Your task to perform on an android device: turn on priority inbox in the gmail app Image 0: 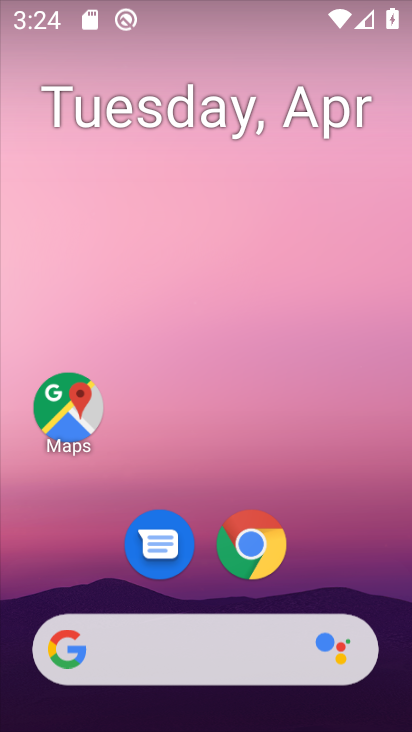
Step 0: drag from (318, 575) to (323, 116)
Your task to perform on an android device: turn on priority inbox in the gmail app Image 1: 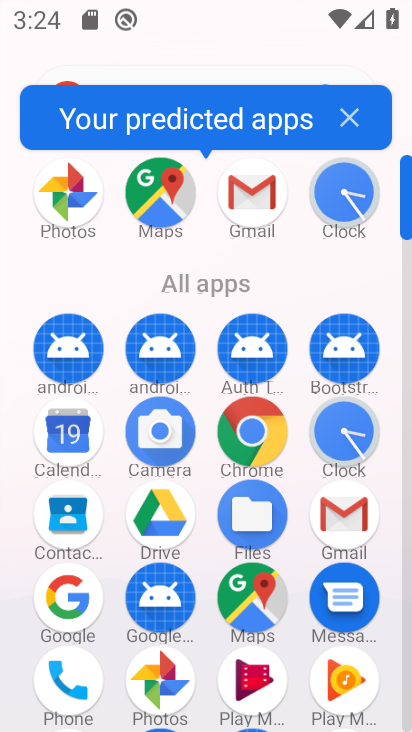
Step 1: click (262, 186)
Your task to perform on an android device: turn on priority inbox in the gmail app Image 2: 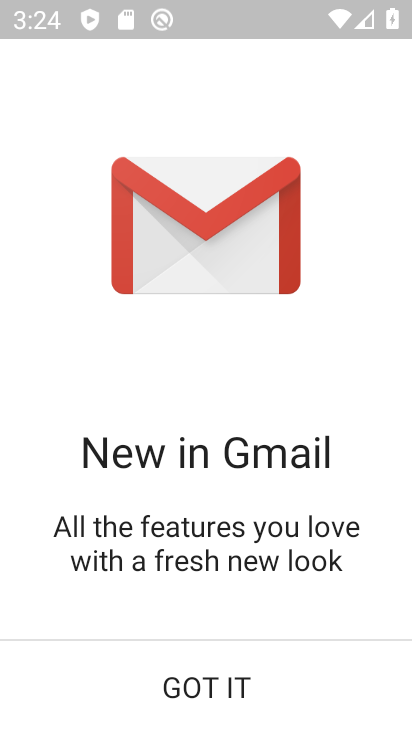
Step 2: click (202, 697)
Your task to perform on an android device: turn on priority inbox in the gmail app Image 3: 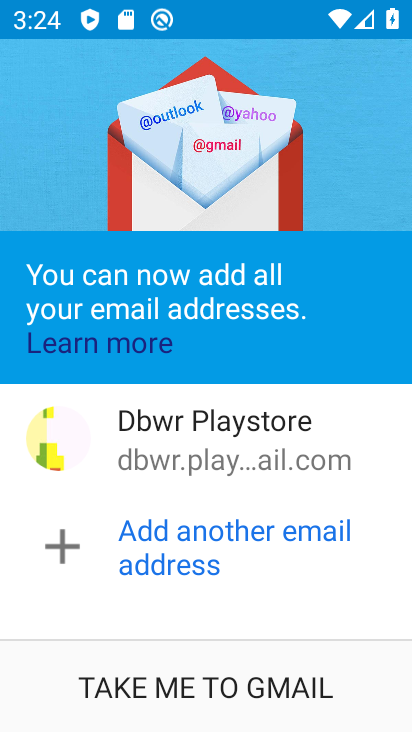
Step 3: click (189, 703)
Your task to perform on an android device: turn on priority inbox in the gmail app Image 4: 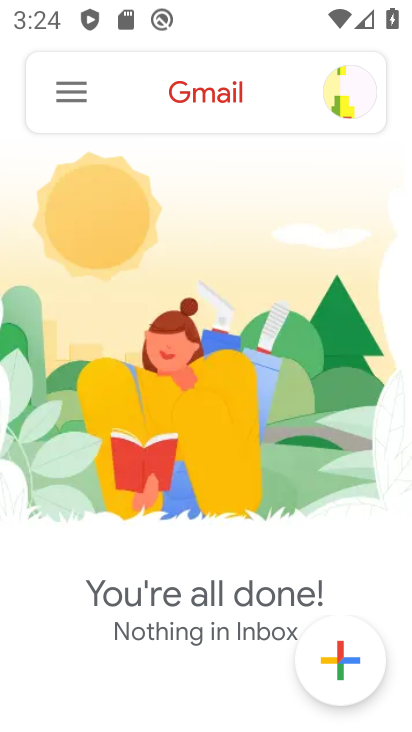
Step 4: click (57, 94)
Your task to perform on an android device: turn on priority inbox in the gmail app Image 5: 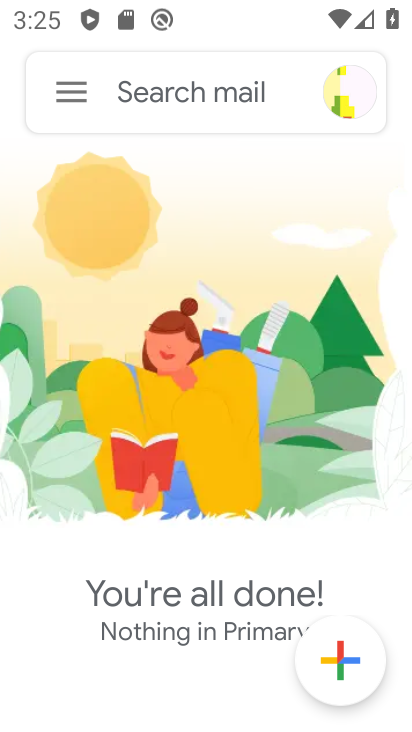
Step 5: click (69, 85)
Your task to perform on an android device: turn on priority inbox in the gmail app Image 6: 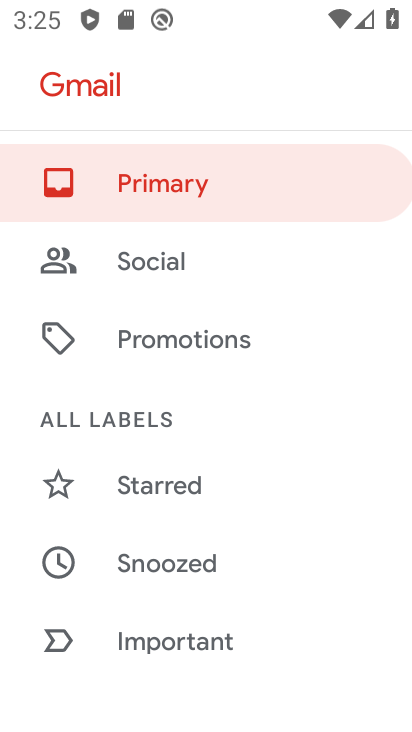
Step 6: drag from (236, 562) to (251, 244)
Your task to perform on an android device: turn on priority inbox in the gmail app Image 7: 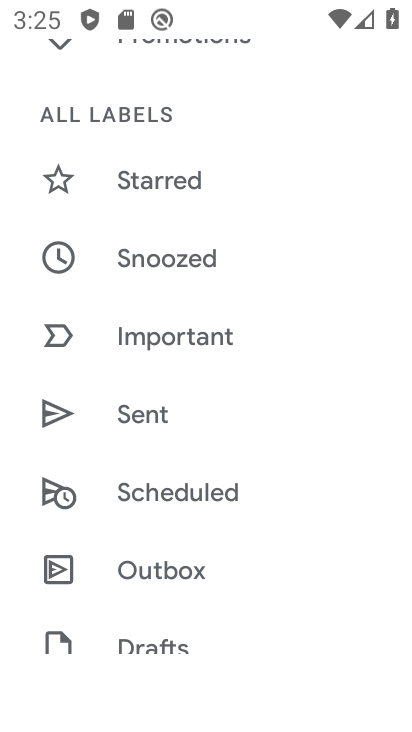
Step 7: drag from (234, 615) to (275, 210)
Your task to perform on an android device: turn on priority inbox in the gmail app Image 8: 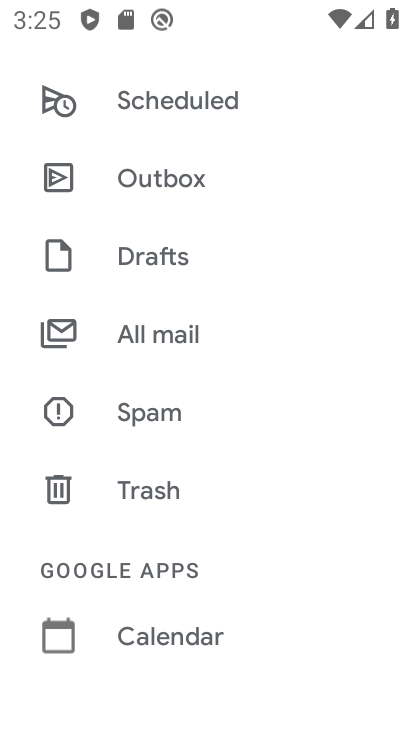
Step 8: drag from (228, 634) to (276, 253)
Your task to perform on an android device: turn on priority inbox in the gmail app Image 9: 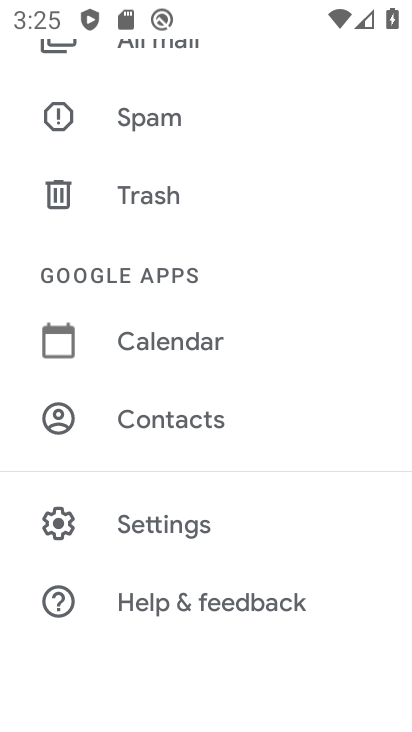
Step 9: click (194, 525)
Your task to perform on an android device: turn on priority inbox in the gmail app Image 10: 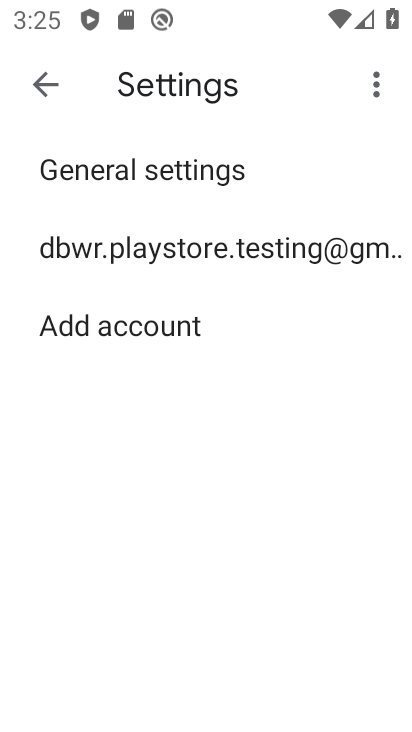
Step 10: click (192, 254)
Your task to perform on an android device: turn on priority inbox in the gmail app Image 11: 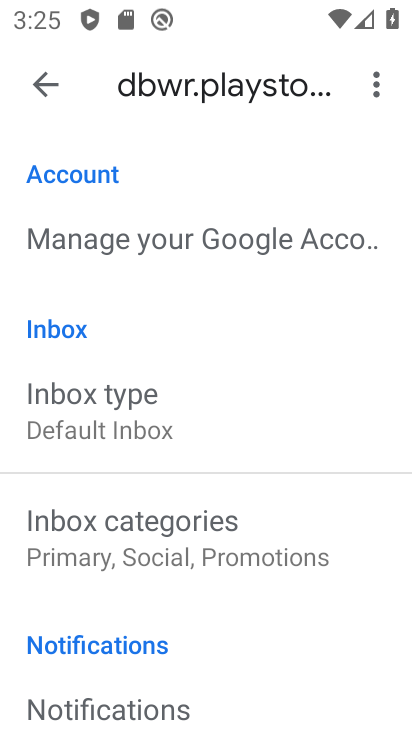
Step 11: click (115, 426)
Your task to perform on an android device: turn on priority inbox in the gmail app Image 12: 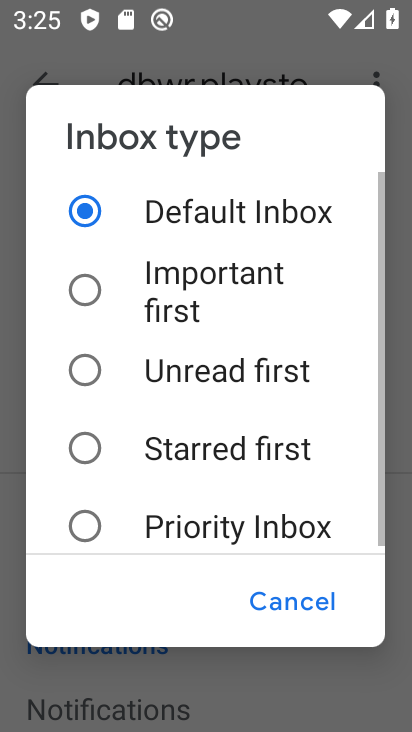
Step 12: click (190, 541)
Your task to perform on an android device: turn on priority inbox in the gmail app Image 13: 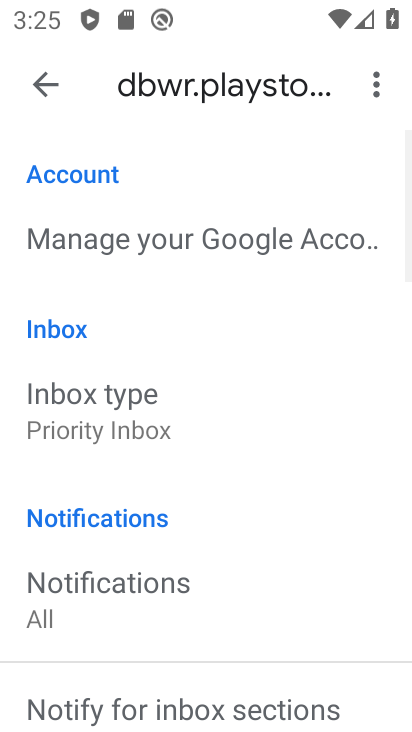
Step 13: task complete